Your task to perform on an android device: Search for razer deathadder on walmart.com, select the first entry, add it to the cart, then select checkout. Image 0: 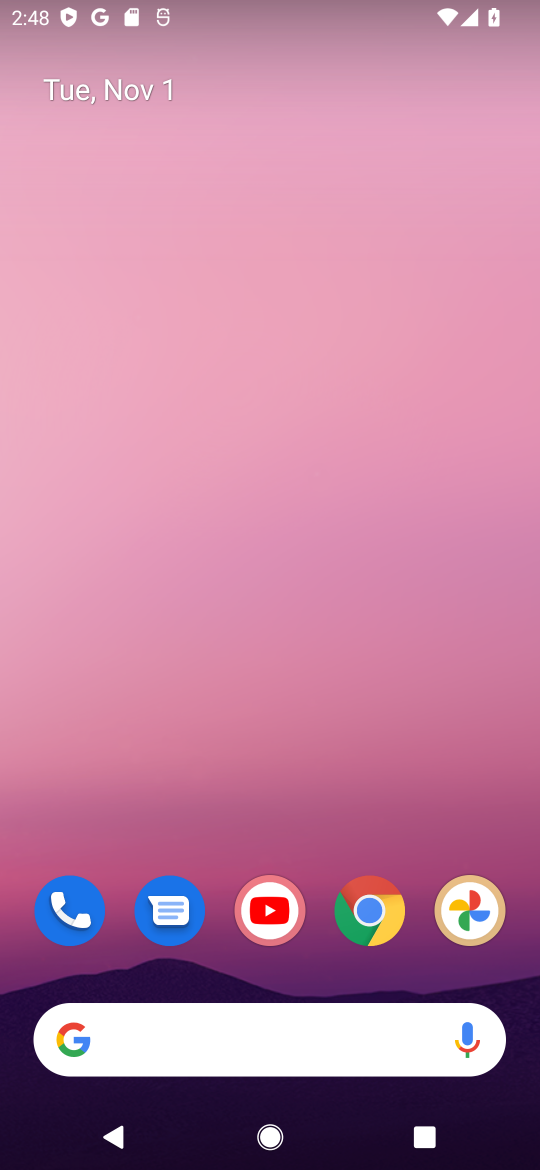
Step 0: click (265, 1046)
Your task to perform on an android device: Search for razer deathadder on walmart.com, select the first entry, add it to the cart, then select checkout. Image 1: 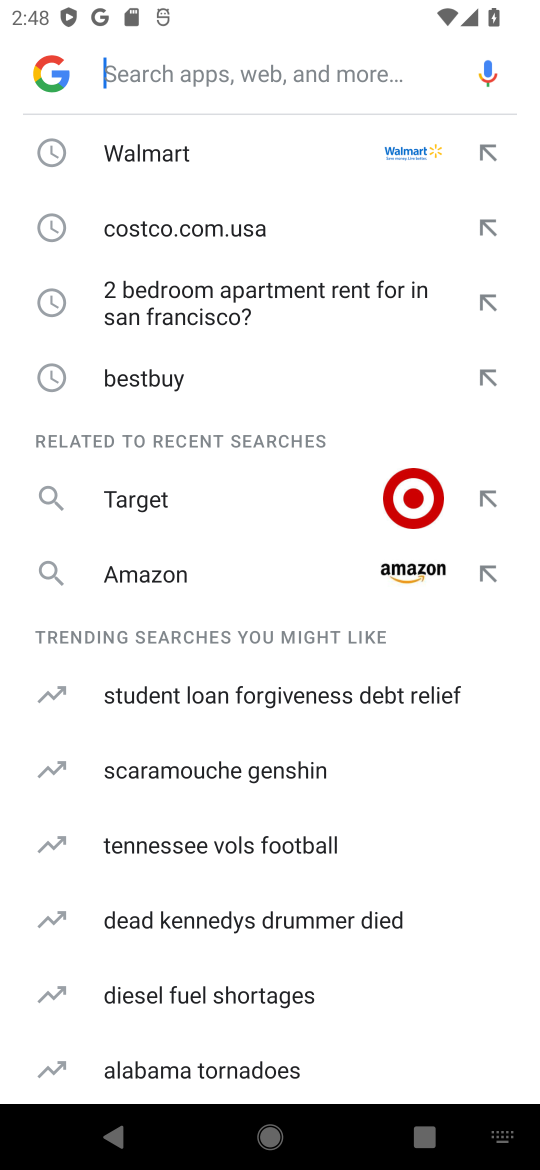
Step 1: type " walmart.com"
Your task to perform on an android device: Search for razer deathadder on walmart.com, select the first entry, add it to the cart, then select checkout. Image 2: 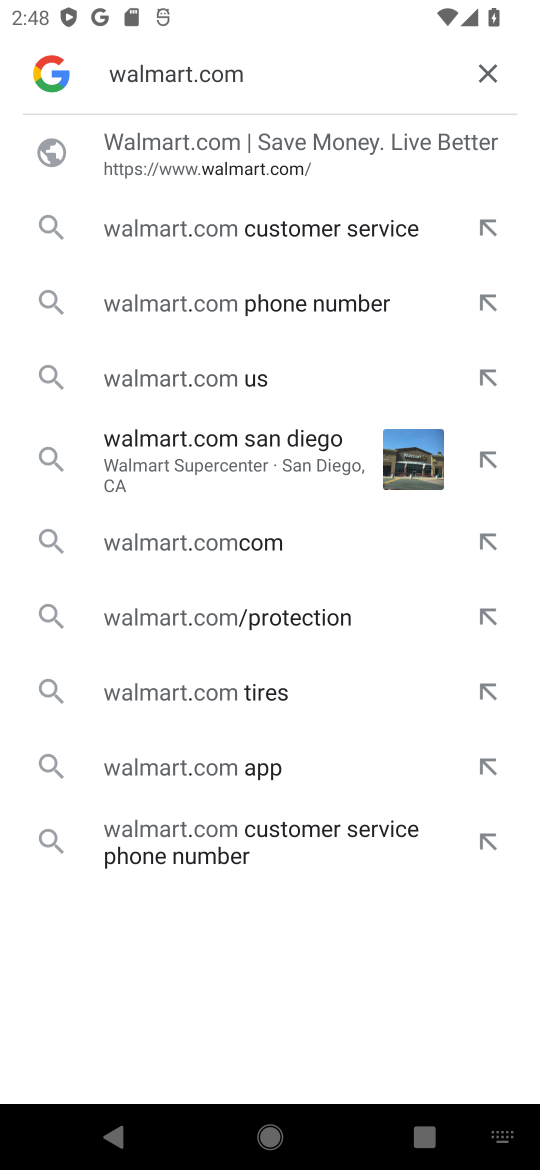
Step 2: click (120, 159)
Your task to perform on an android device: Search for razer deathadder on walmart.com, select the first entry, add it to the cart, then select checkout. Image 3: 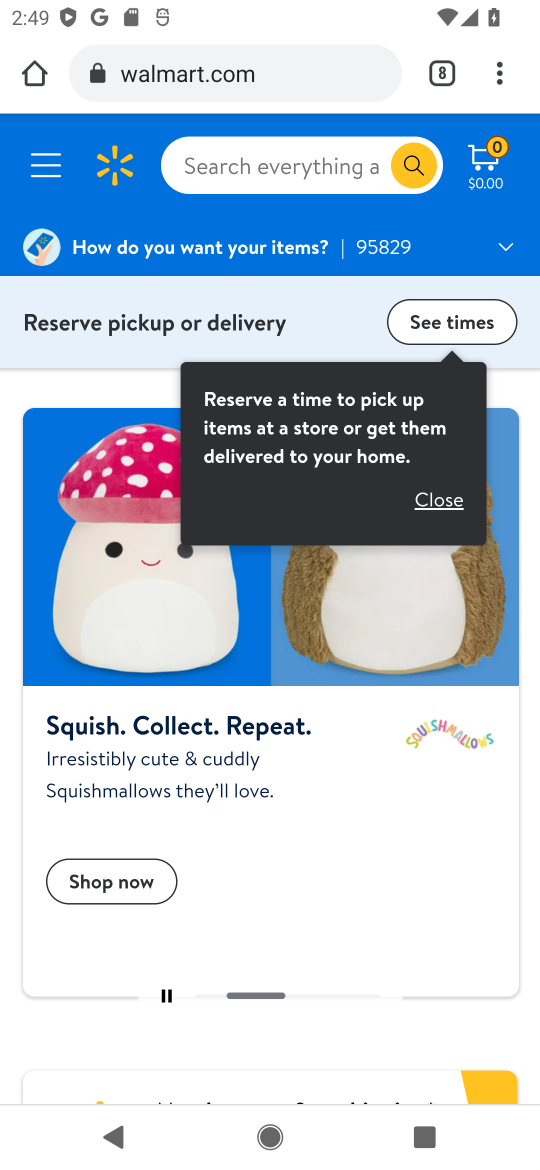
Step 3: click (244, 161)
Your task to perform on an android device: Search for razer deathadder on walmart.com, select the first entry, add it to the cart, then select checkout. Image 4: 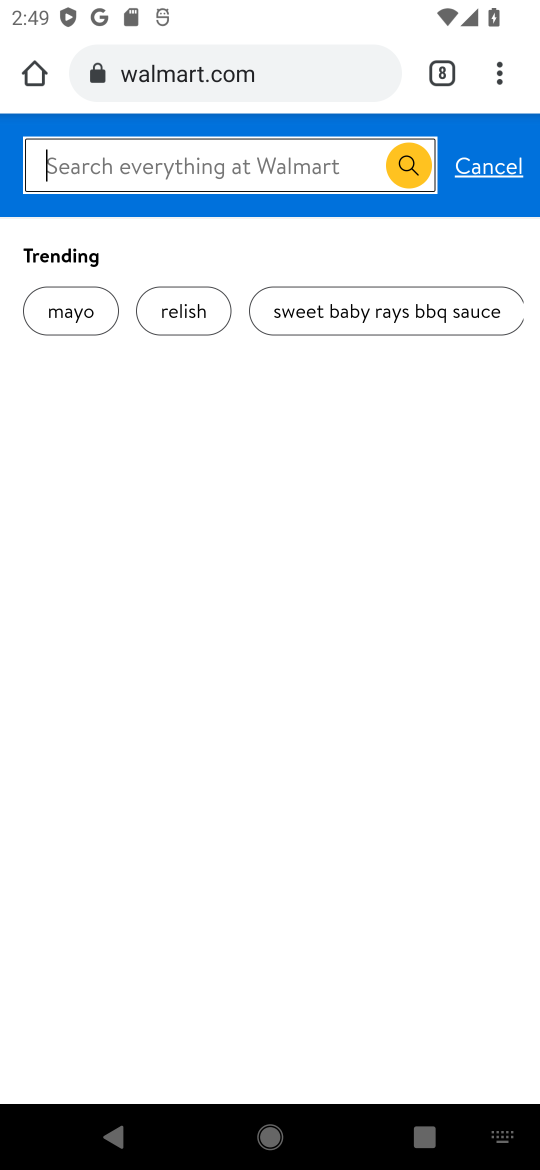
Step 4: type " razer deathadder "
Your task to perform on an android device: Search for razer deathadder on walmart.com, select the first entry, add it to the cart, then select checkout. Image 5: 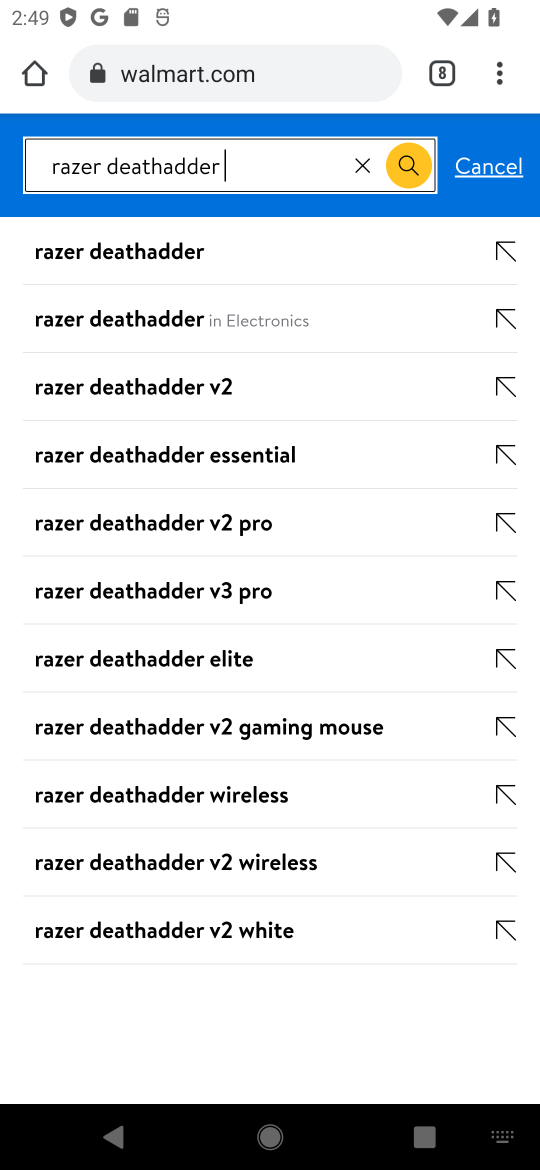
Step 5: click (160, 254)
Your task to perform on an android device: Search for razer deathadder on walmart.com, select the first entry, add it to the cart, then select checkout. Image 6: 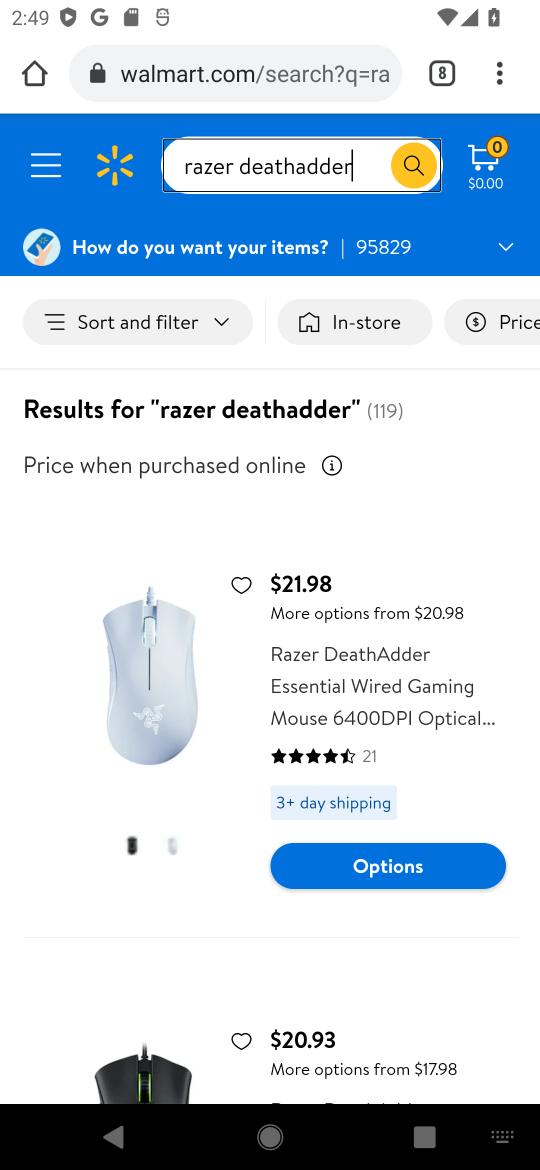
Step 6: click (365, 878)
Your task to perform on an android device: Search for razer deathadder on walmart.com, select the first entry, add it to the cart, then select checkout. Image 7: 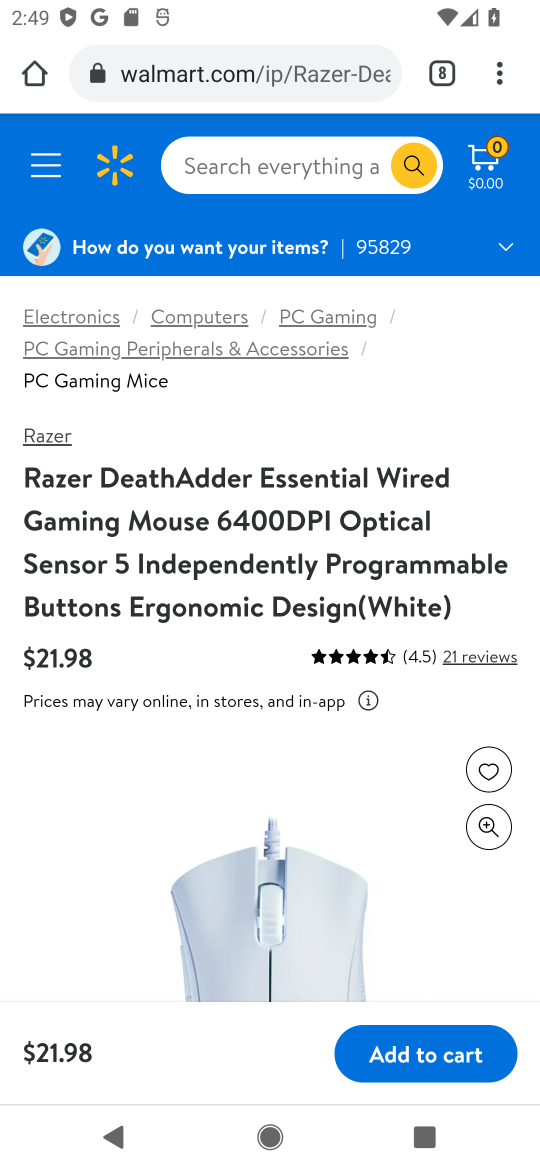
Step 7: click (419, 1051)
Your task to perform on an android device: Search for razer deathadder on walmart.com, select the first entry, add it to the cart, then select checkout. Image 8: 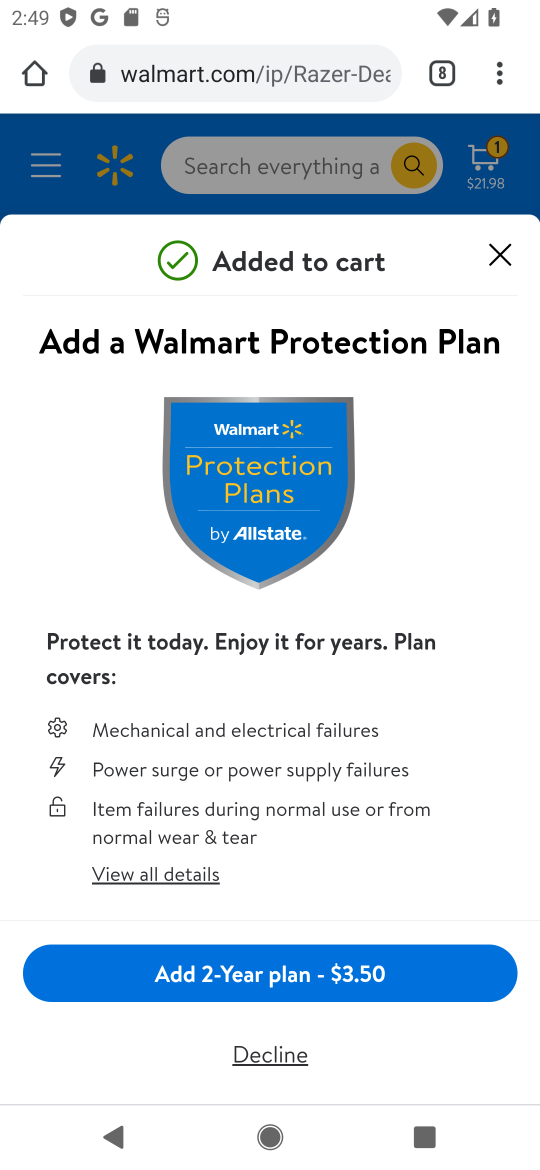
Step 8: drag from (385, 767) to (378, 578)
Your task to perform on an android device: Search for razer deathadder on walmart.com, select the first entry, add it to the cart, then select checkout. Image 9: 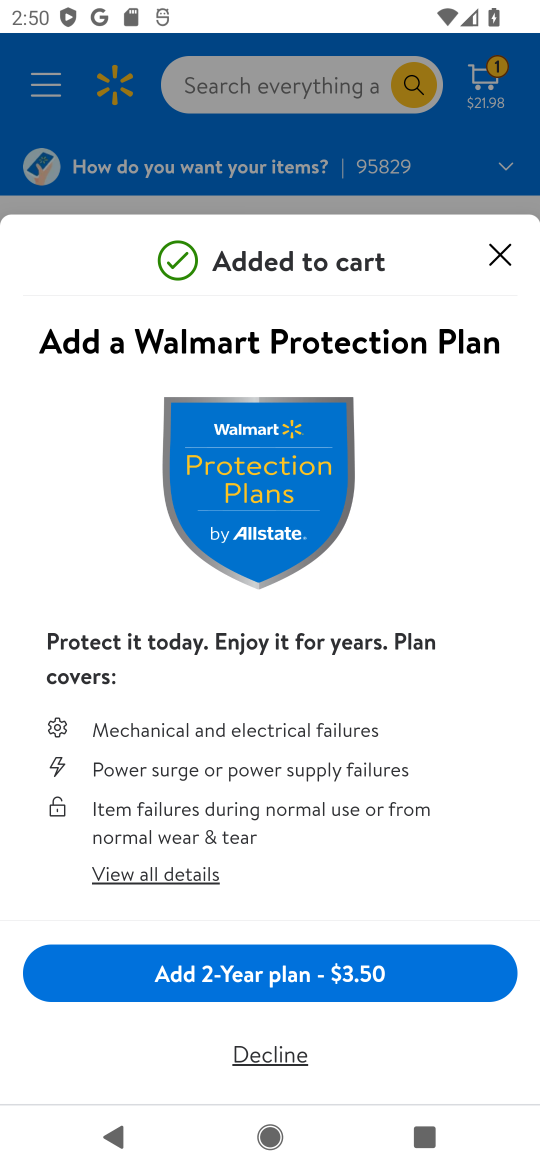
Step 9: click (256, 981)
Your task to perform on an android device: Search for razer deathadder on walmart.com, select the first entry, add it to the cart, then select checkout. Image 10: 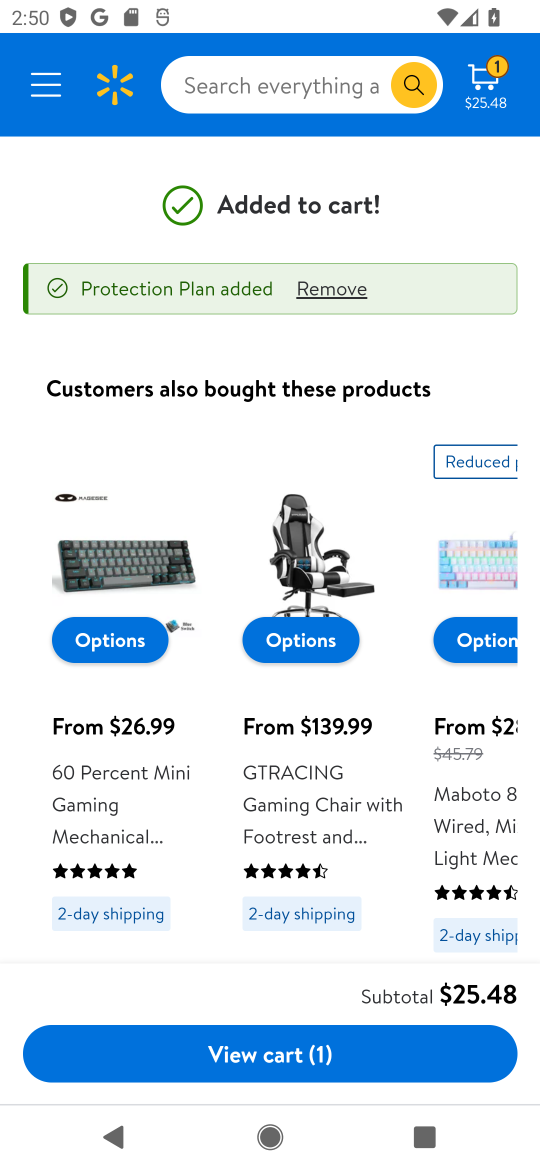
Step 10: click (269, 1063)
Your task to perform on an android device: Search for razer deathadder on walmart.com, select the first entry, add it to the cart, then select checkout. Image 11: 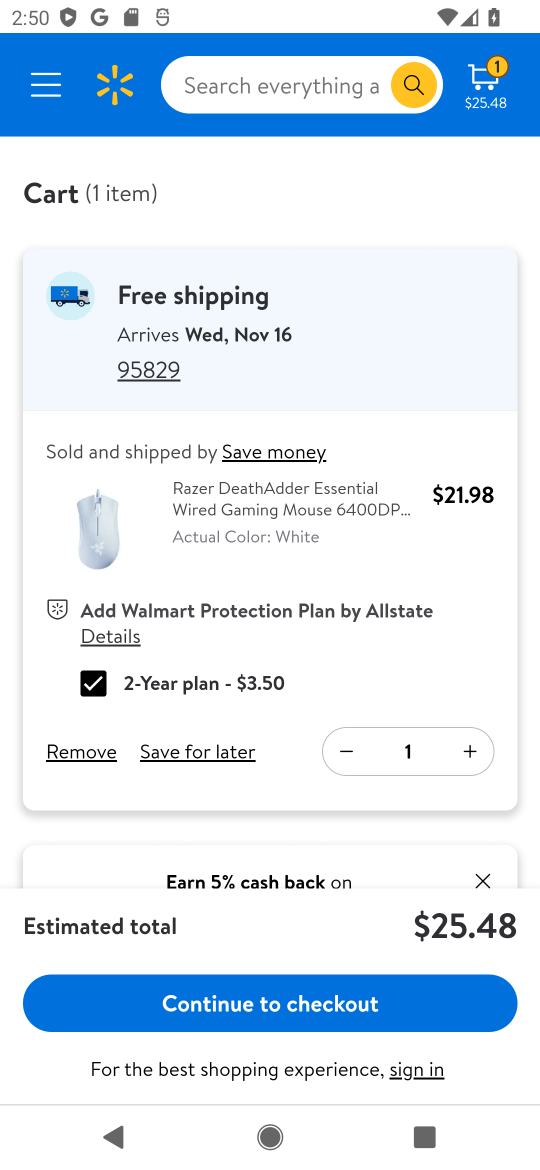
Step 11: click (275, 1006)
Your task to perform on an android device: Search for razer deathadder on walmart.com, select the first entry, add it to the cart, then select checkout. Image 12: 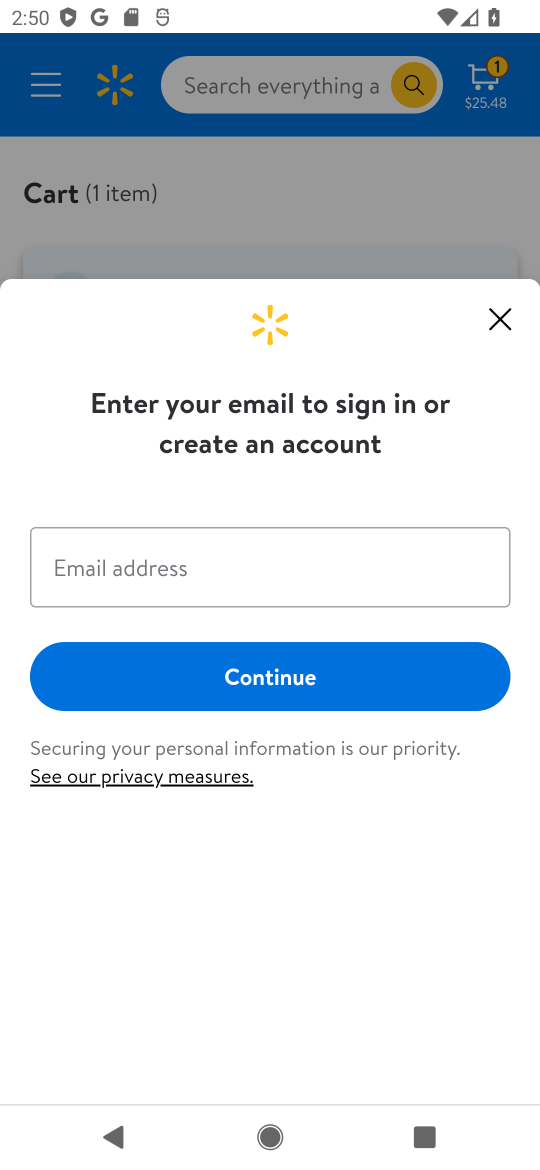
Step 12: task complete